Your task to perform on an android device: turn on showing notifications on the lock screen Image 0: 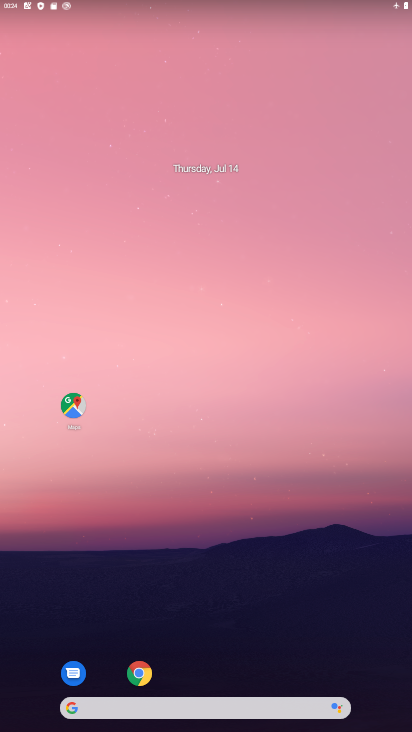
Step 0: drag from (194, 604) to (184, 182)
Your task to perform on an android device: turn on showing notifications on the lock screen Image 1: 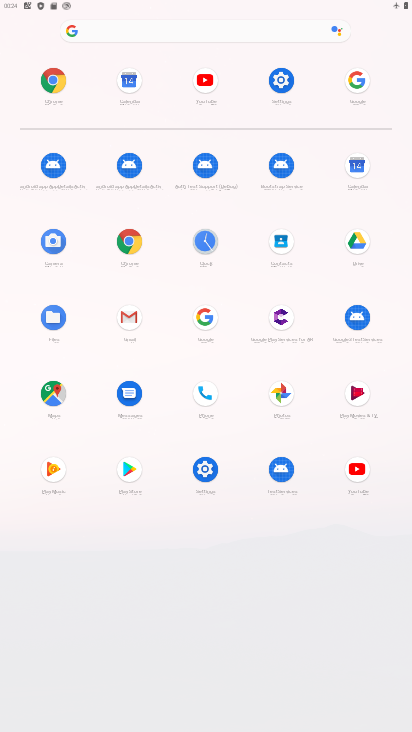
Step 1: click (272, 96)
Your task to perform on an android device: turn on showing notifications on the lock screen Image 2: 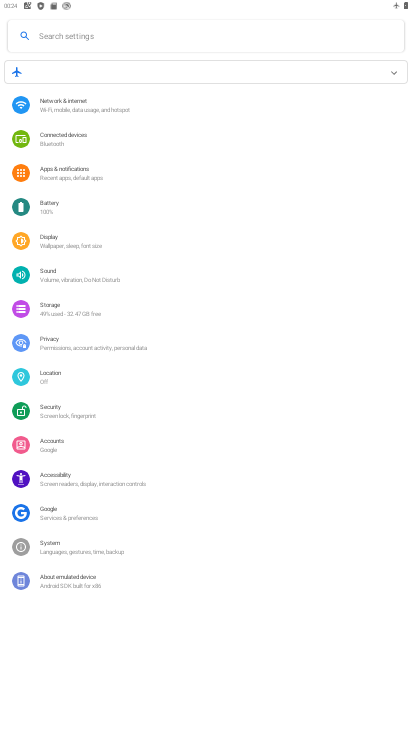
Step 2: click (101, 178)
Your task to perform on an android device: turn on showing notifications on the lock screen Image 3: 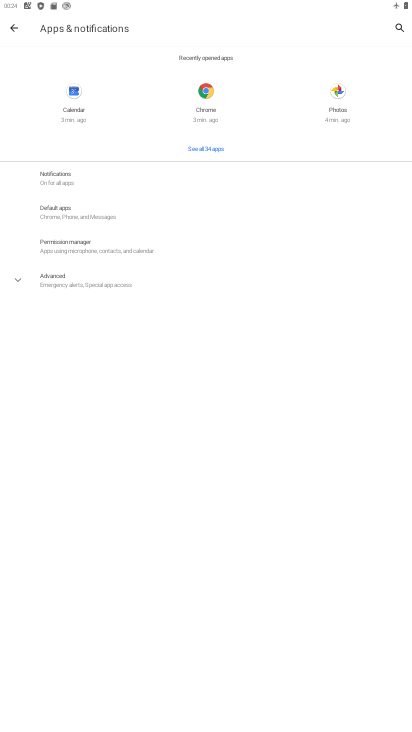
Step 3: click (90, 175)
Your task to perform on an android device: turn on showing notifications on the lock screen Image 4: 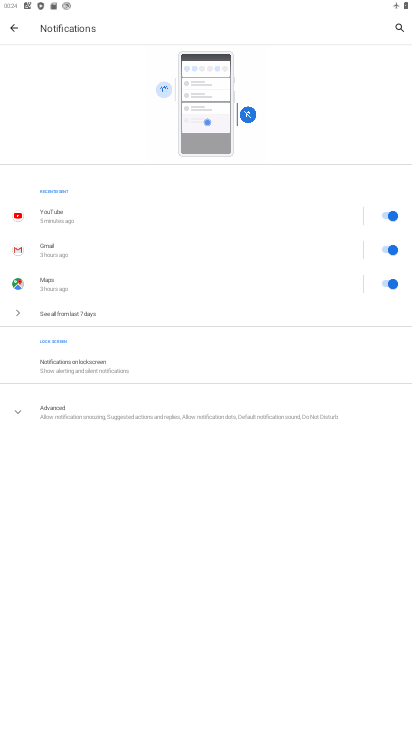
Step 4: click (112, 361)
Your task to perform on an android device: turn on showing notifications on the lock screen Image 5: 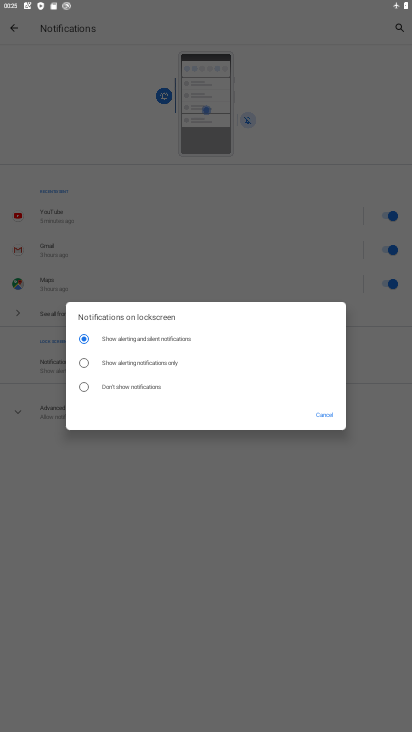
Step 5: task complete